Your task to perform on an android device: Go to Google Image 0: 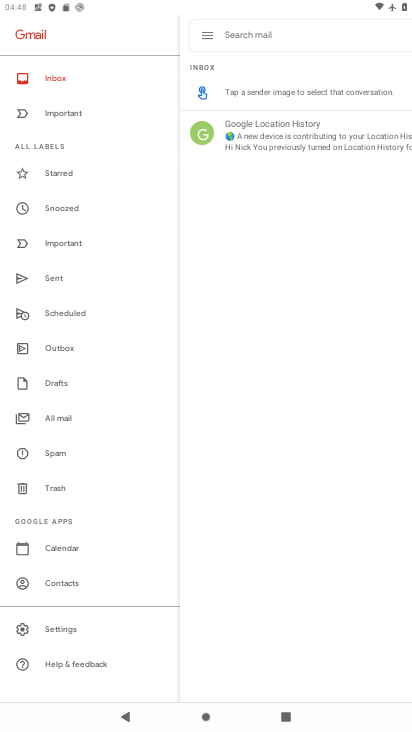
Step 0: press home button
Your task to perform on an android device: Go to Google Image 1: 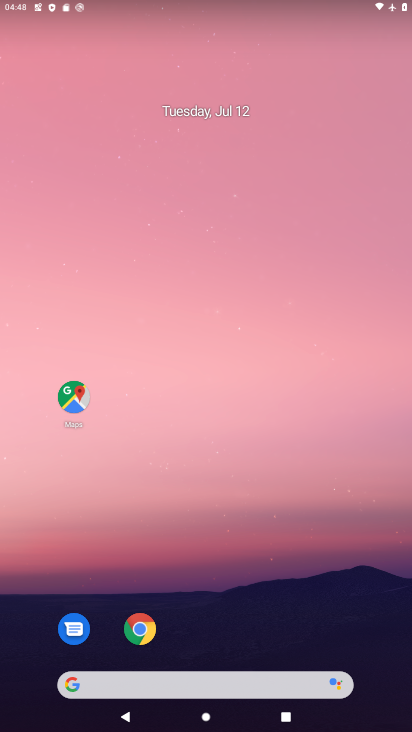
Step 1: drag from (293, 614) to (257, 108)
Your task to perform on an android device: Go to Google Image 2: 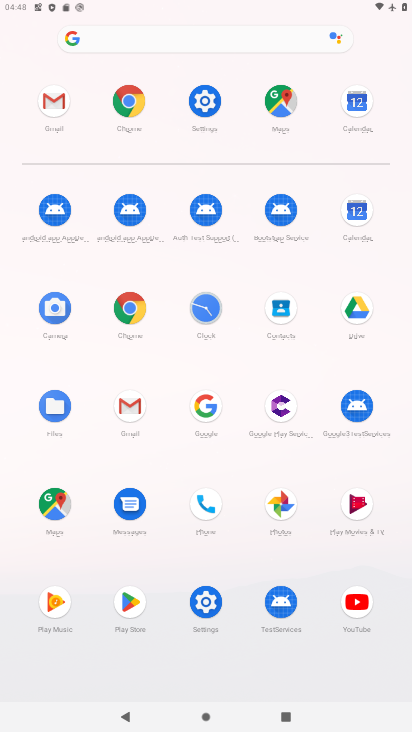
Step 2: click (215, 410)
Your task to perform on an android device: Go to Google Image 3: 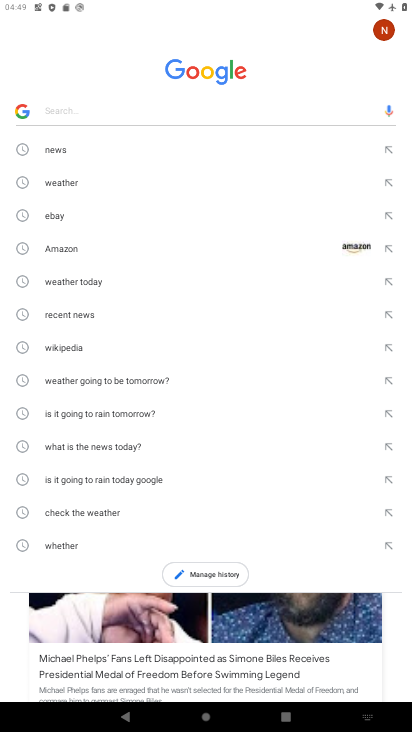
Step 3: task complete